Your task to perform on an android device: empty trash in the gmail app Image 0: 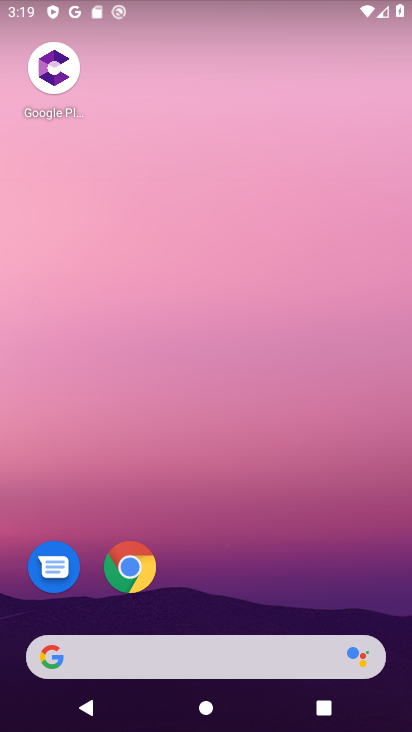
Step 0: click (221, 125)
Your task to perform on an android device: empty trash in the gmail app Image 1: 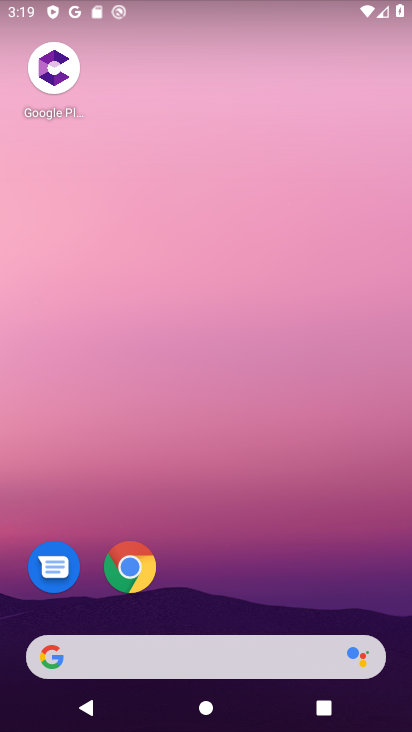
Step 1: drag from (322, 632) to (232, 62)
Your task to perform on an android device: empty trash in the gmail app Image 2: 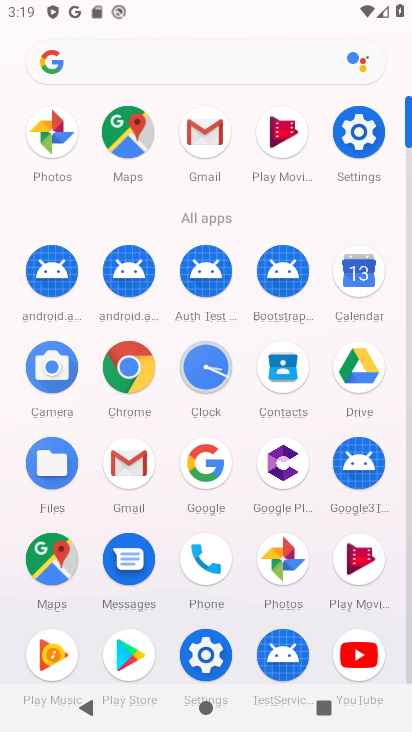
Step 2: drag from (279, 471) to (227, 22)
Your task to perform on an android device: empty trash in the gmail app Image 3: 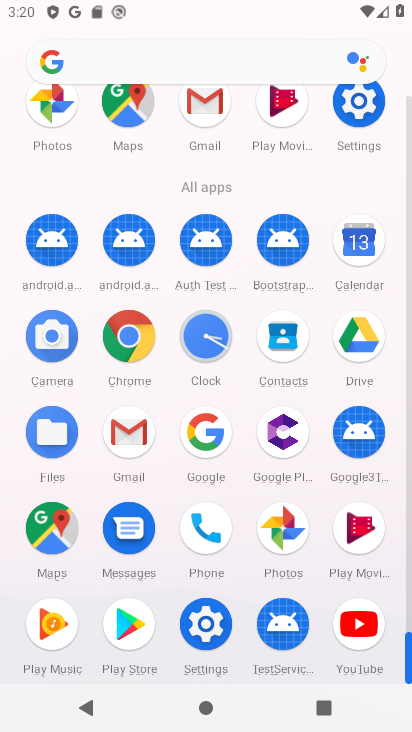
Step 3: click (130, 435)
Your task to perform on an android device: empty trash in the gmail app Image 4: 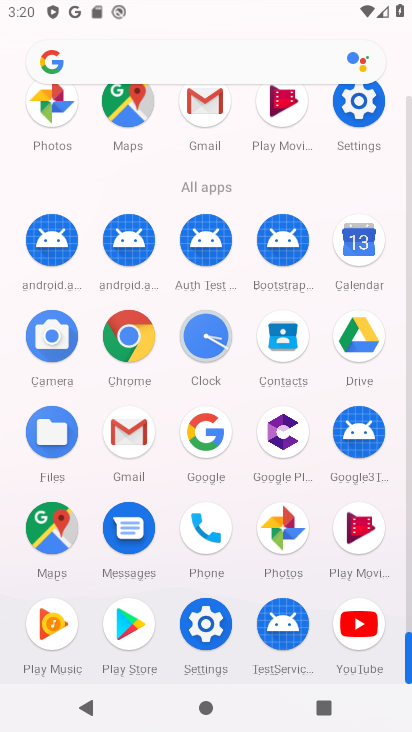
Step 4: click (130, 435)
Your task to perform on an android device: empty trash in the gmail app Image 5: 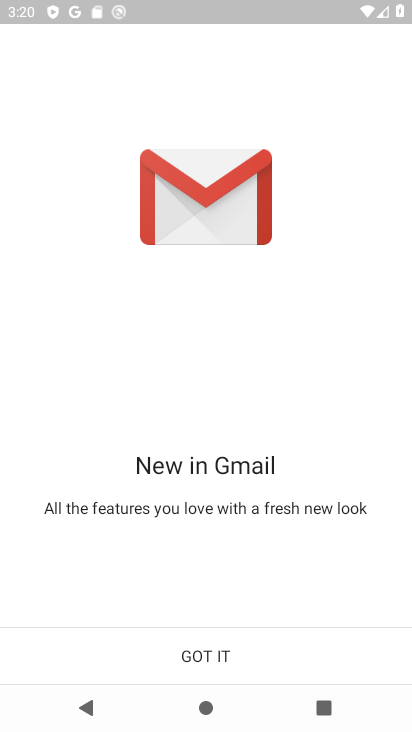
Step 5: click (212, 661)
Your task to perform on an android device: empty trash in the gmail app Image 6: 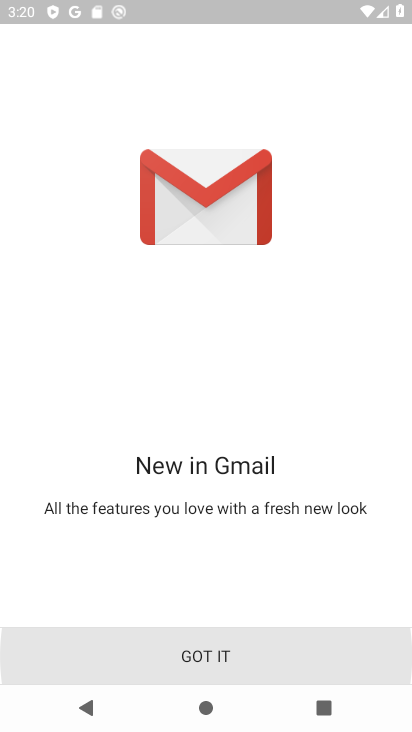
Step 6: click (212, 661)
Your task to perform on an android device: empty trash in the gmail app Image 7: 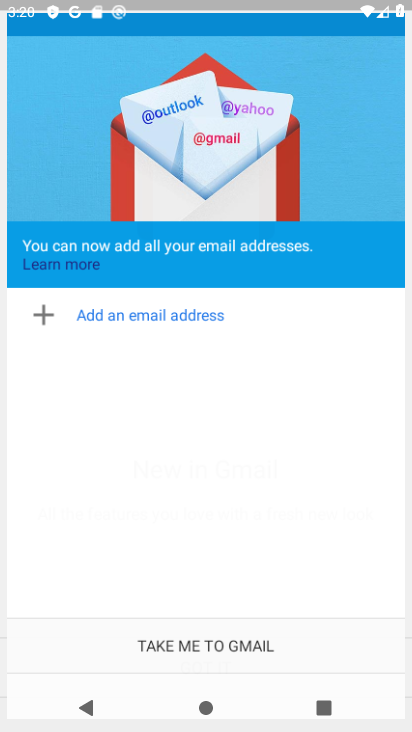
Step 7: click (211, 659)
Your task to perform on an android device: empty trash in the gmail app Image 8: 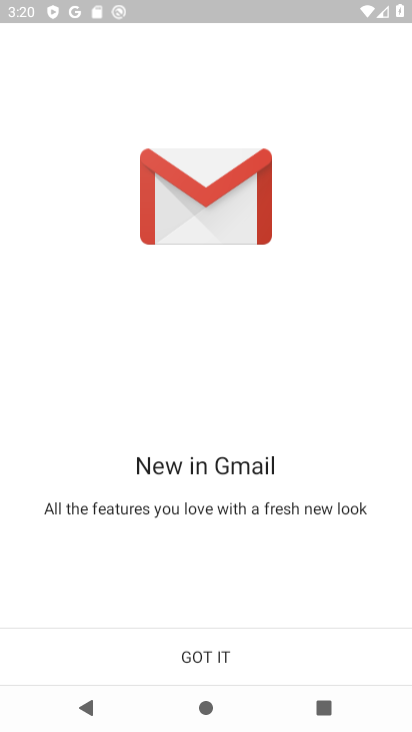
Step 8: click (208, 652)
Your task to perform on an android device: empty trash in the gmail app Image 9: 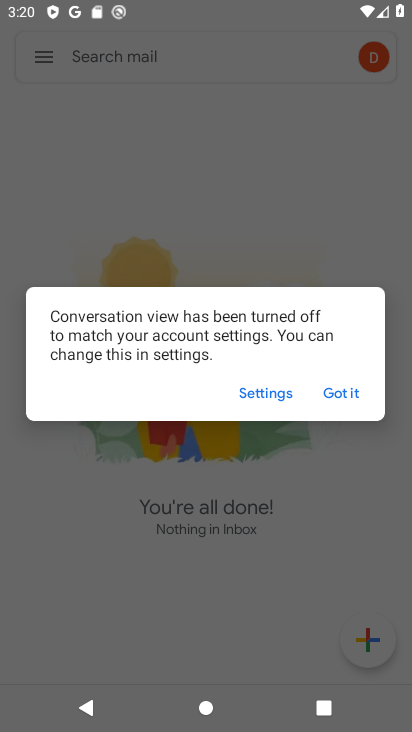
Step 9: click (329, 393)
Your task to perform on an android device: empty trash in the gmail app Image 10: 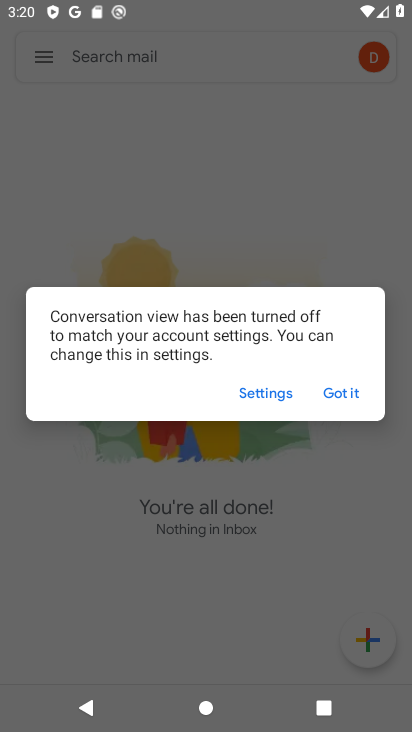
Step 10: click (335, 391)
Your task to perform on an android device: empty trash in the gmail app Image 11: 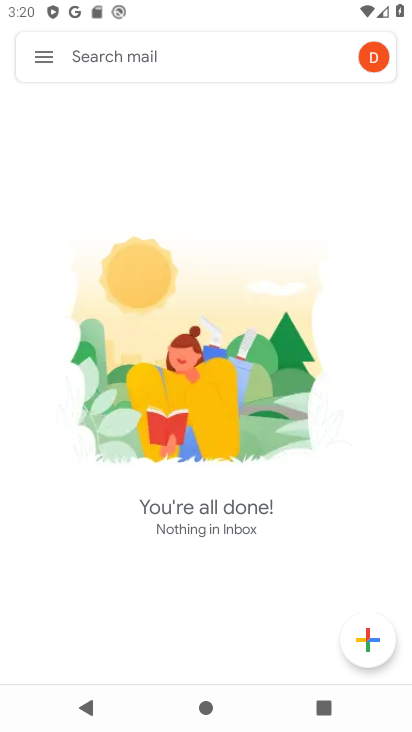
Step 11: click (32, 58)
Your task to perform on an android device: empty trash in the gmail app Image 12: 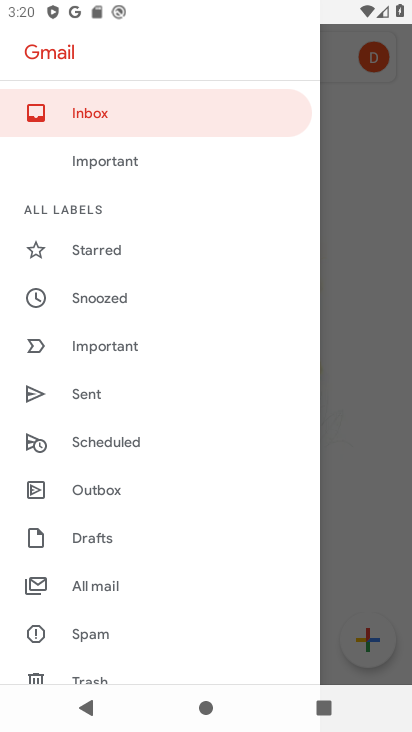
Step 12: drag from (102, 623) to (81, 58)
Your task to perform on an android device: empty trash in the gmail app Image 13: 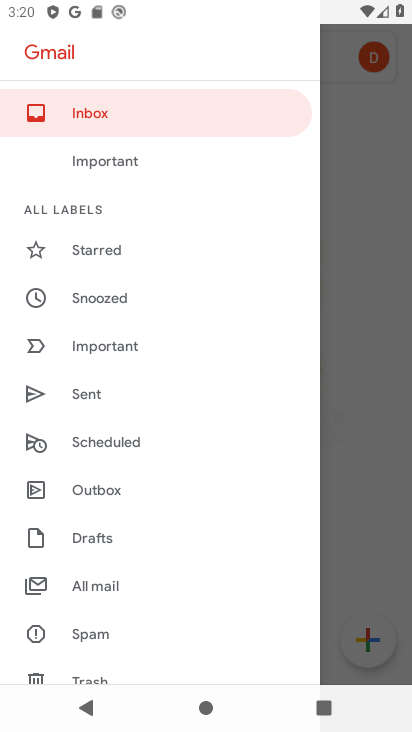
Step 13: drag from (134, 457) to (170, 81)
Your task to perform on an android device: empty trash in the gmail app Image 14: 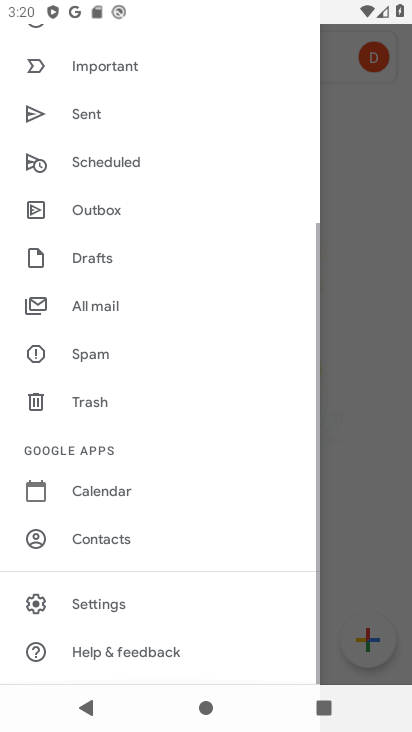
Step 14: drag from (66, 566) to (99, 213)
Your task to perform on an android device: empty trash in the gmail app Image 15: 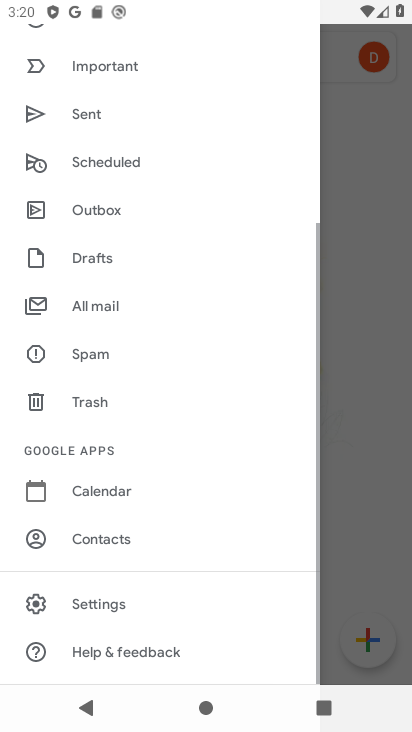
Step 15: click (85, 404)
Your task to perform on an android device: empty trash in the gmail app Image 16: 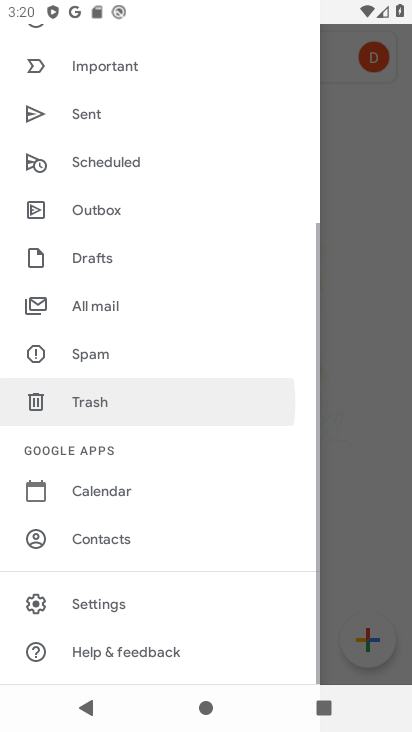
Step 16: click (82, 403)
Your task to perform on an android device: empty trash in the gmail app Image 17: 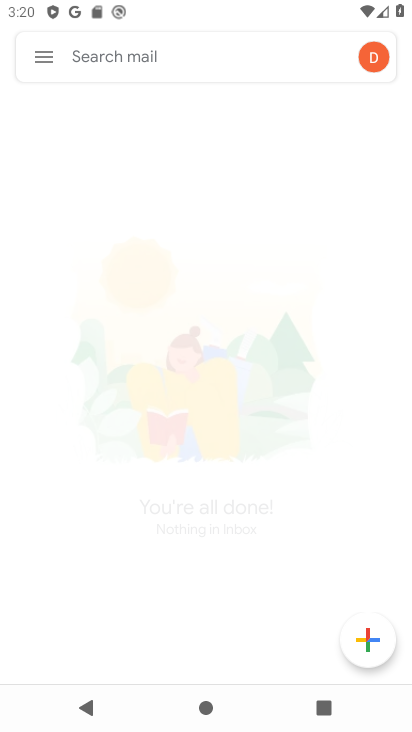
Step 17: click (70, 403)
Your task to perform on an android device: empty trash in the gmail app Image 18: 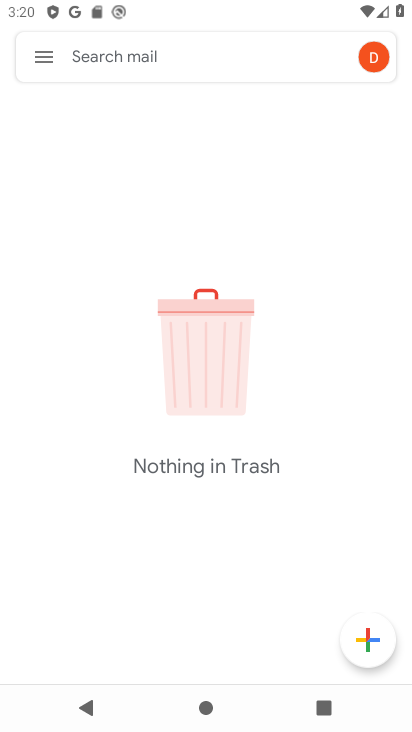
Step 18: task complete